Your task to perform on an android device: turn smart compose on in the gmail app Image 0: 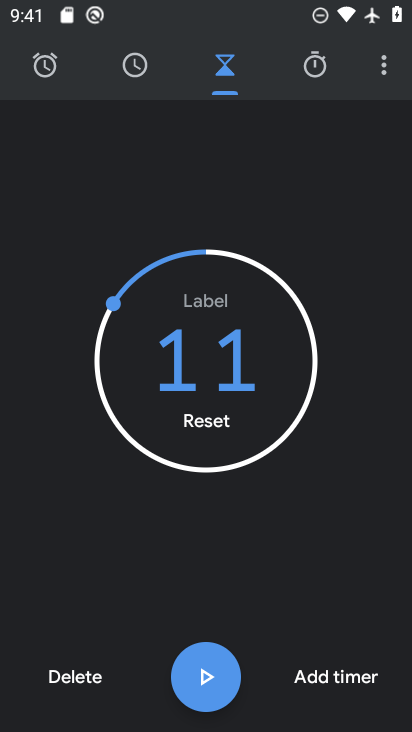
Step 0: press home button
Your task to perform on an android device: turn smart compose on in the gmail app Image 1: 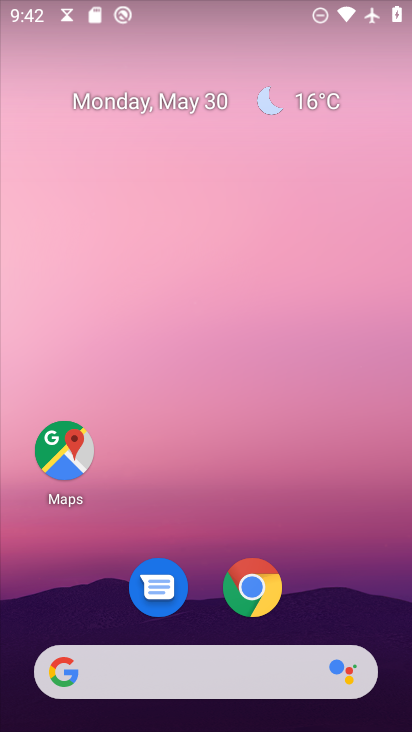
Step 1: drag from (174, 685) to (322, 112)
Your task to perform on an android device: turn smart compose on in the gmail app Image 2: 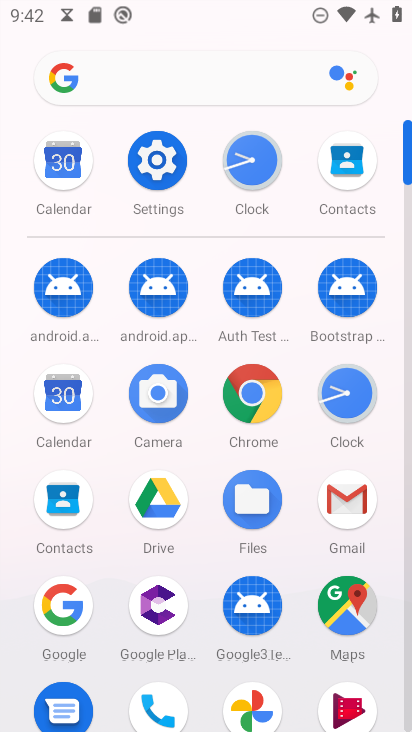
Step 2: click (351, 505)
Your task to perform on an android device: turn smart compose on in the gmail app Image 3: 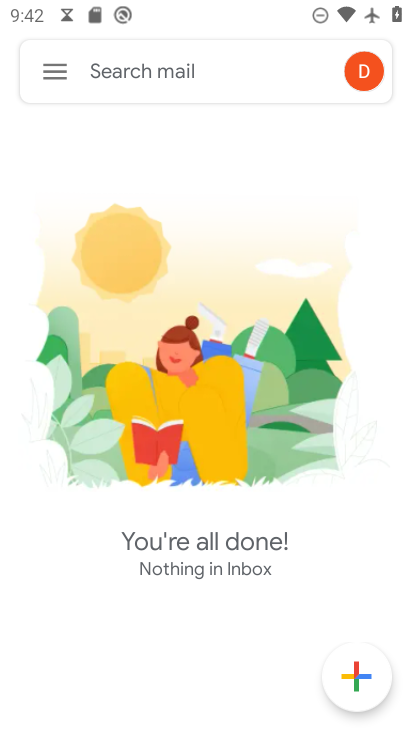
Step 3: click (59, 75)
Your task to perform on an android device: turn smart compose on in the gmail app Image 4: 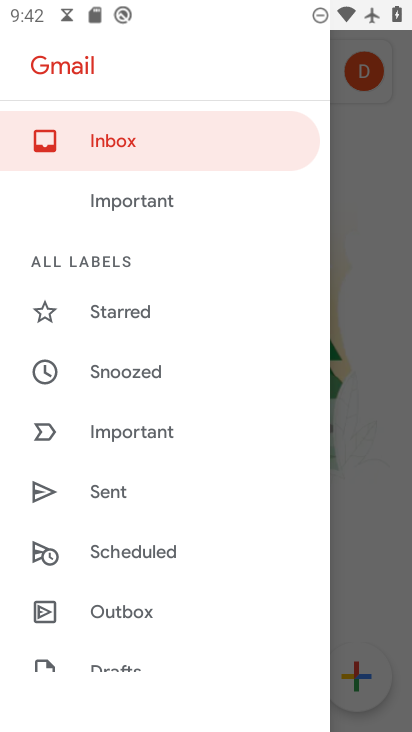
Step 4: drag from (183, 662) to (272, 48)
Your task to perform on an android device: turn smart compose on in the gmail app Image 5: 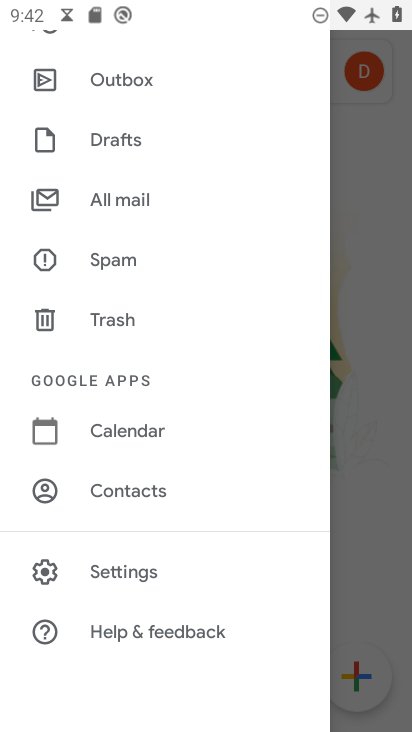
Step 5: click (108, 574)
Your task to perform on an android device: turn smart compose on in the gmail app Image 6: 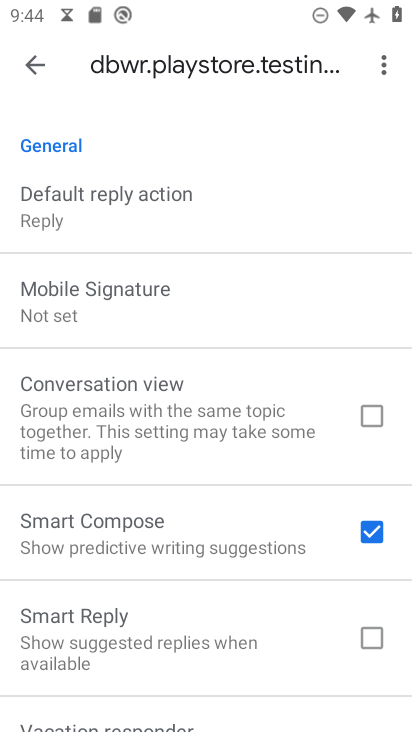
Step 6: task complete